Your task to perform on an android device: Open maps Image 0: 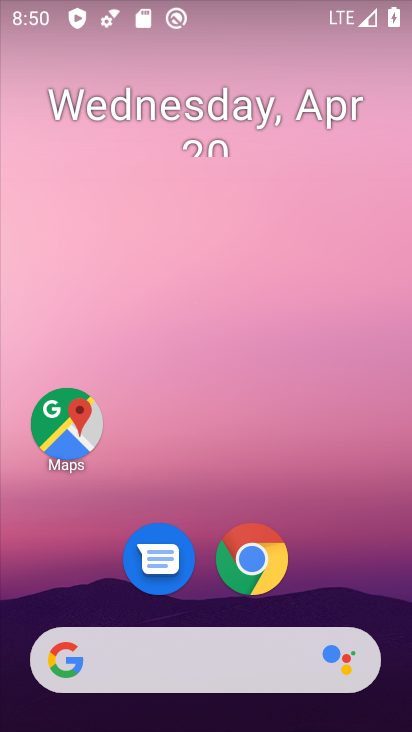
Step 0: click (63, 430)
Your task to perform on an android device: Open maps Image 1: 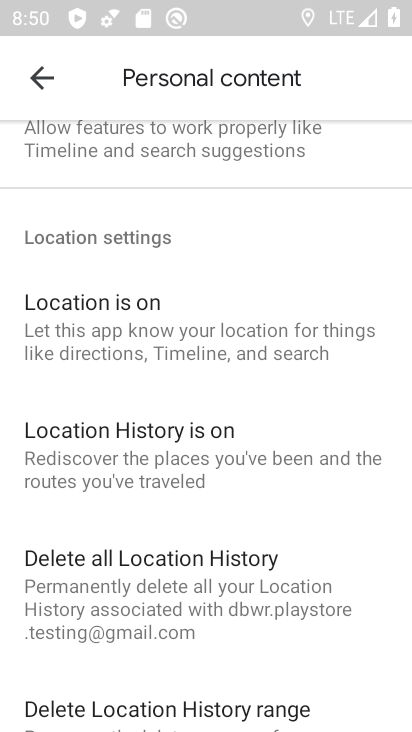
Step 1: task complete